Your task to perform on an android device: Open Google Maps Image 0: 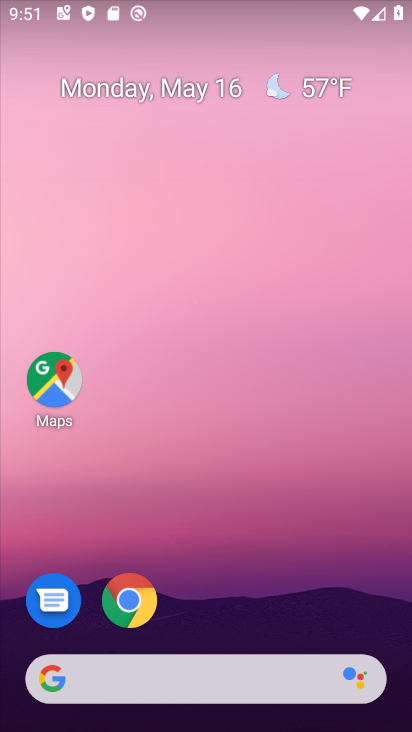
Step 0: drag from (311, 563) to (311, 204)
Your task to perform on an android device: Open Google Maps Image 1: 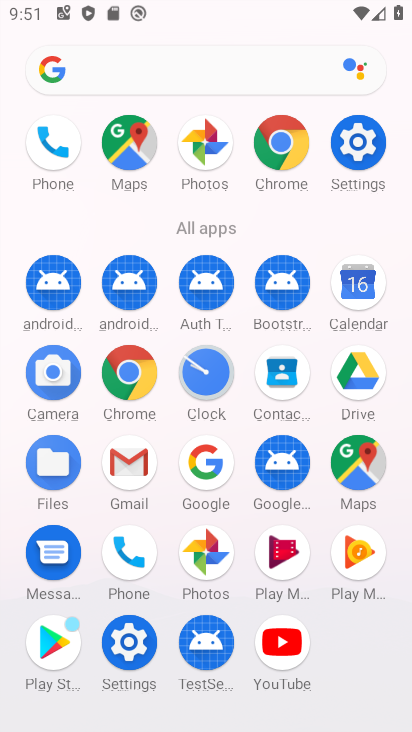
Step 1: click (361, 465)
Your task to perform on an android device: Open Google Maps Image 2: 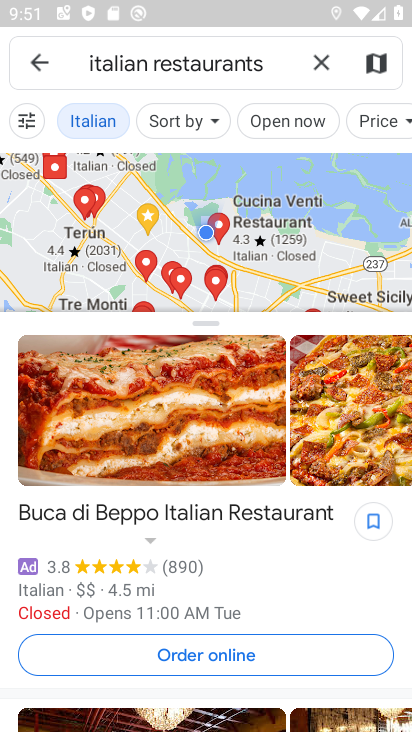
Step 2: task complete